Your task to perform on an android device: Show me popular games on the Play Store Image 0: 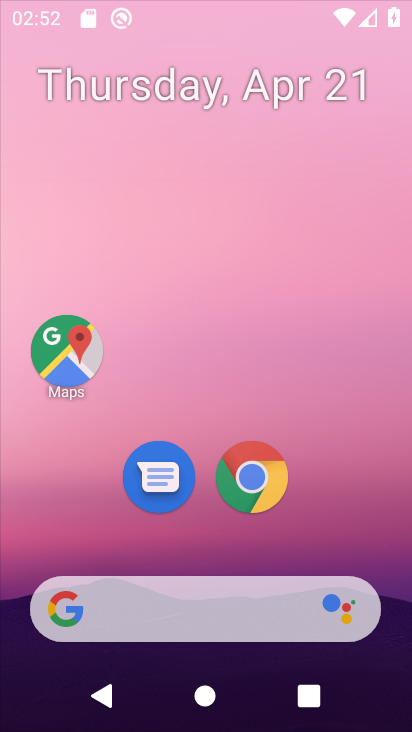
Step 0: drag from (192, 571) to (59, 10)
Your task to perform on an android device: Show me popular games on the Play Store Image 1: 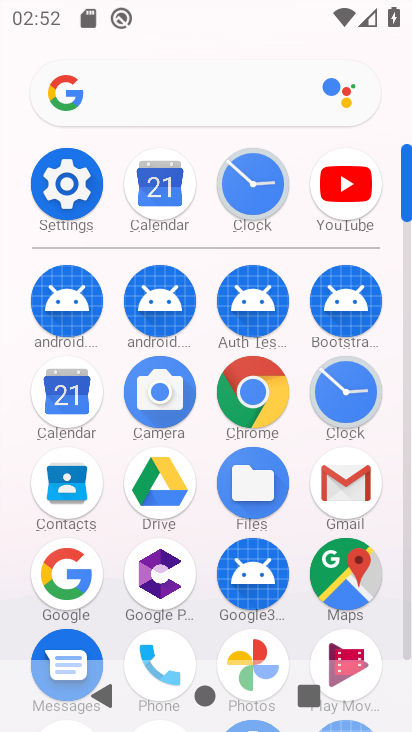
Step 1: drag from (193, 617) to (237, 139)
Your task to perform on an android device: Show me popular games on the Play Store Image 2: 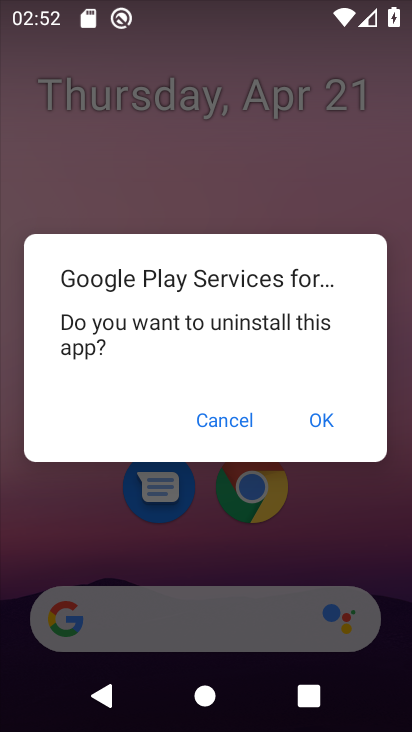
Step 2: drag from (200, 541) to (221, 65)
Your task to perform on an android device: Show me popular games on the Play Store Image 3: 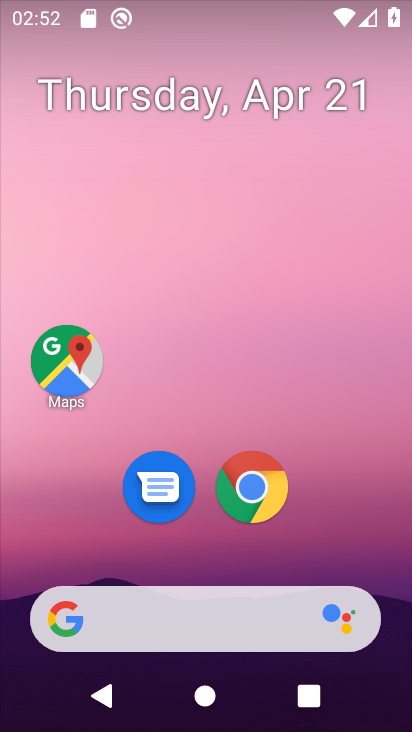
Step 3: drag from (213, 533) to (231, 121)
Your task to perform on an android device: Show me popular games on the Play Store Image 4: 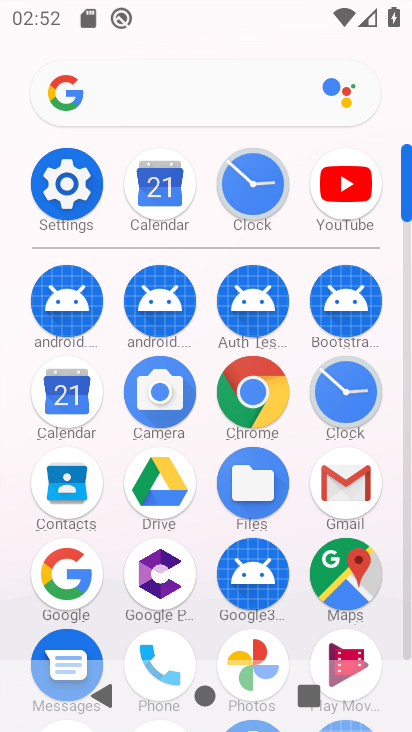
Step 4: drag from (196, 625) to (201, 286)
Your task to perform on an android device: Show me popular games on the Play Store Image 5: 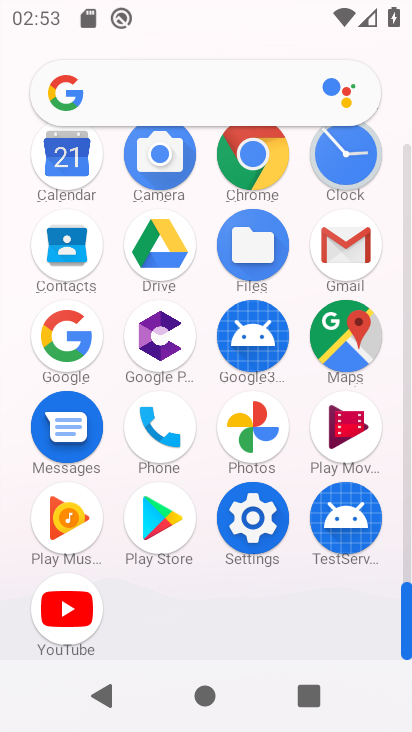
Step 5: click (165, 521)
Your task to perform on an android device: Show me popular games on the Play Store Image 6: 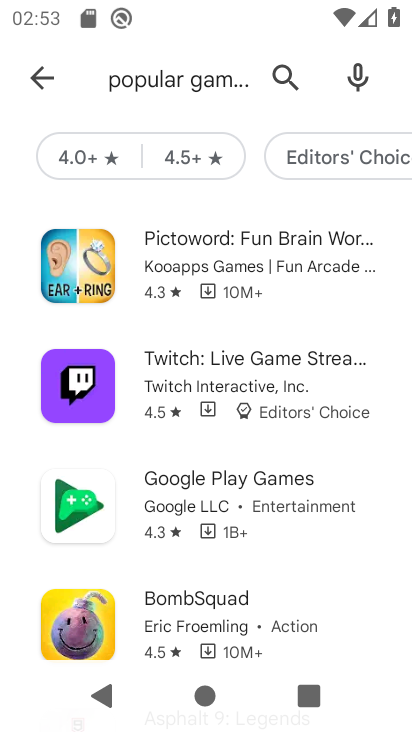
Step 6: task complete